Your task to perform on an android device: Open a new Chrome private window Image 0: 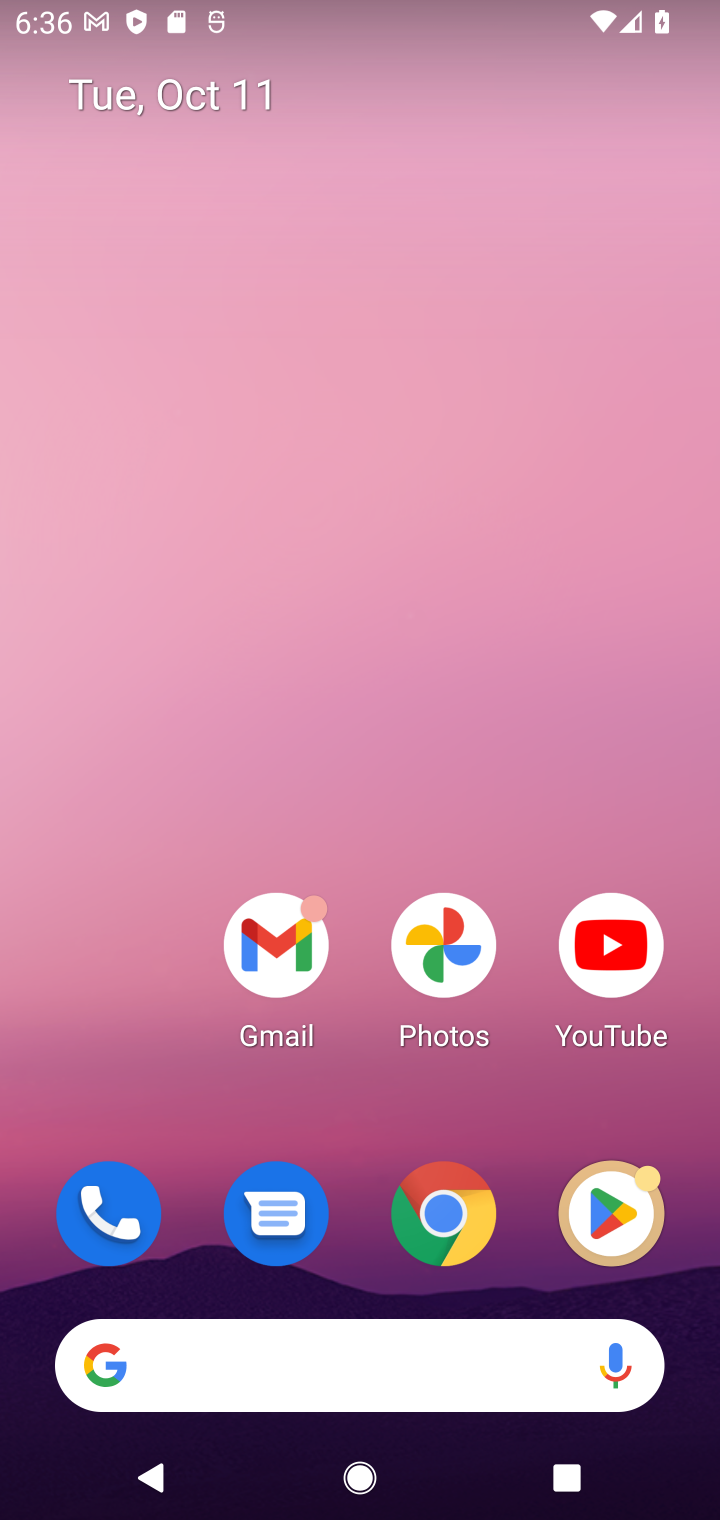
Step 0: drag from (198, 620) to (178, 457)
Your task to perform on an android device: Open a new Chrome private window Image 1: 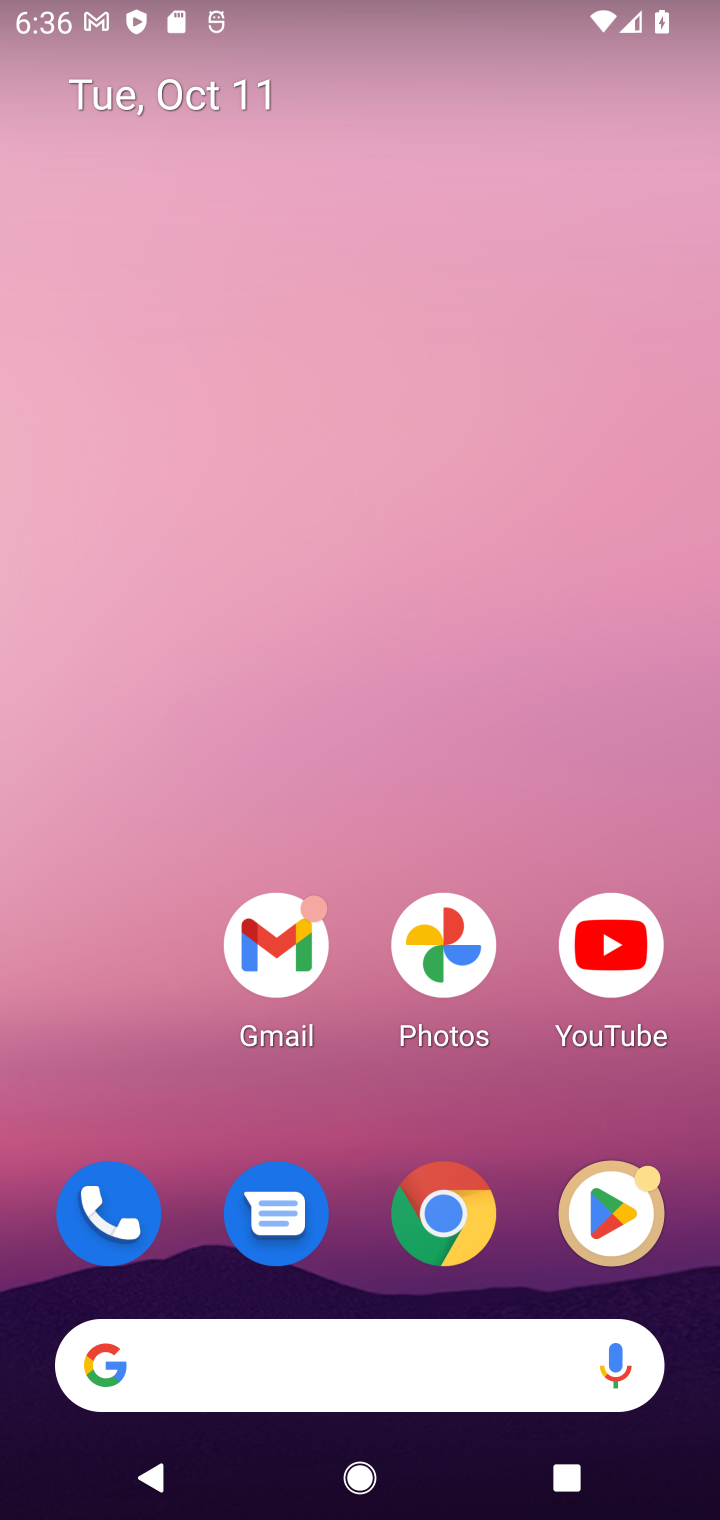
Step 1: click (259, 370)
Your task to perform on an android device: Open a new Chrome private window Image 2: 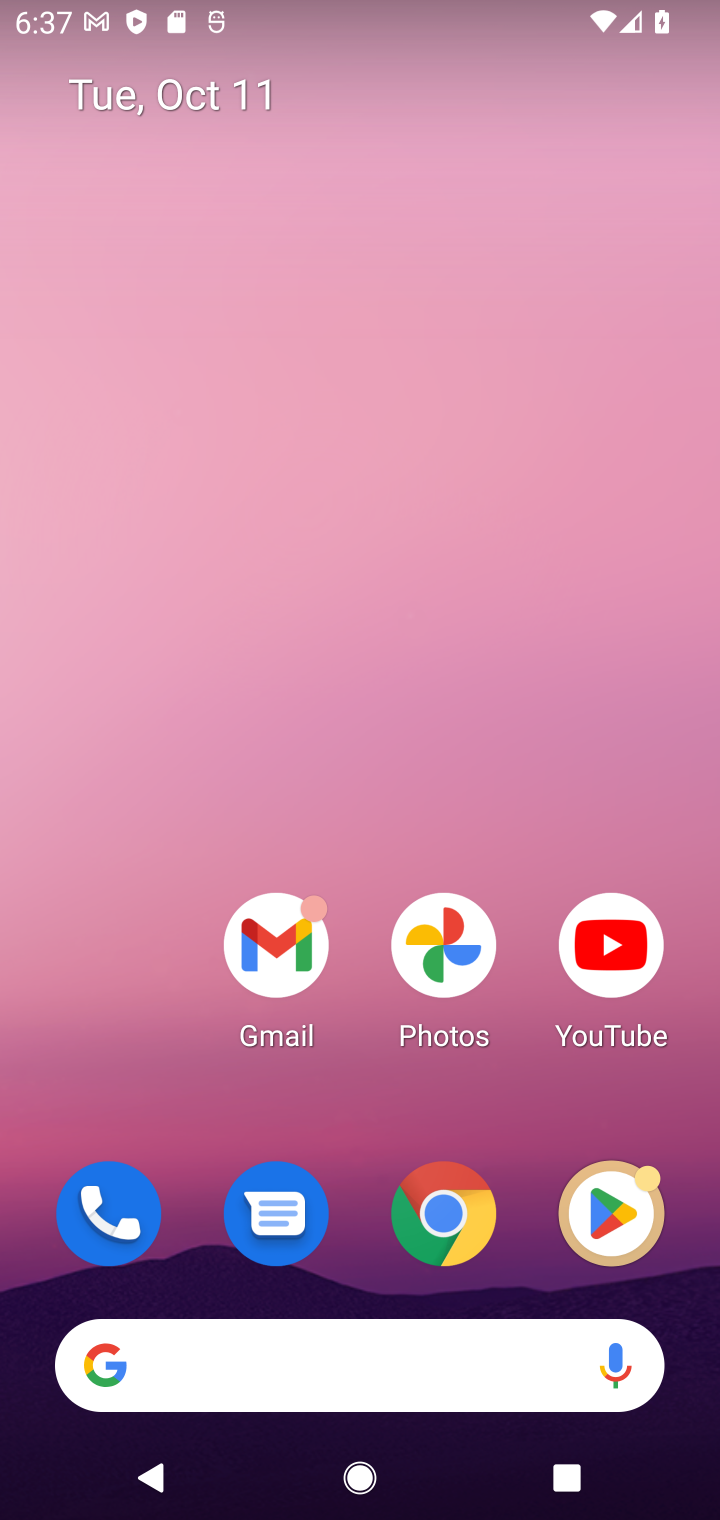
Step 2: click (345, 328)
Your task to perform on an android device: Open a new Chrome private window Image 3: 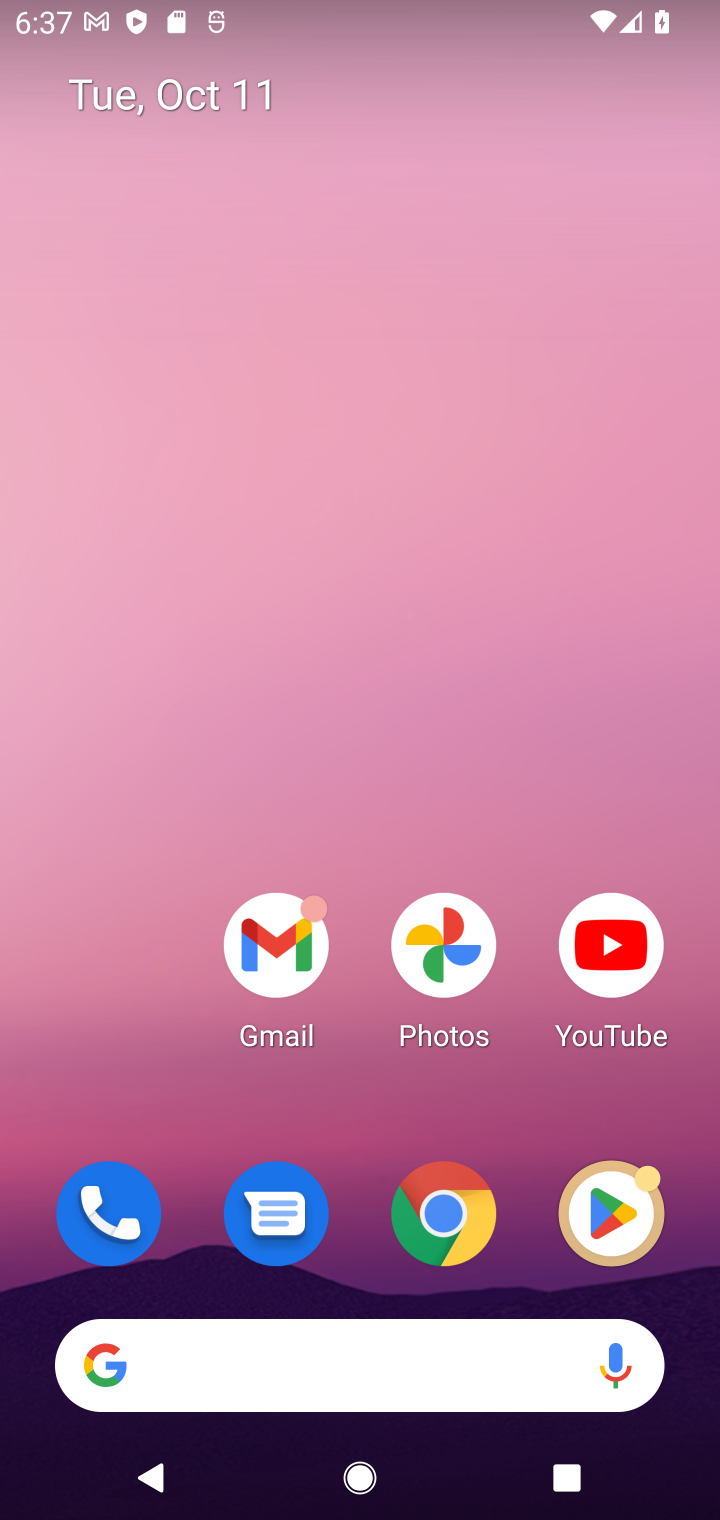
Step 3: click (432, 499)
Your task to perform on an android device: Open a new Chrome private window Image 4: 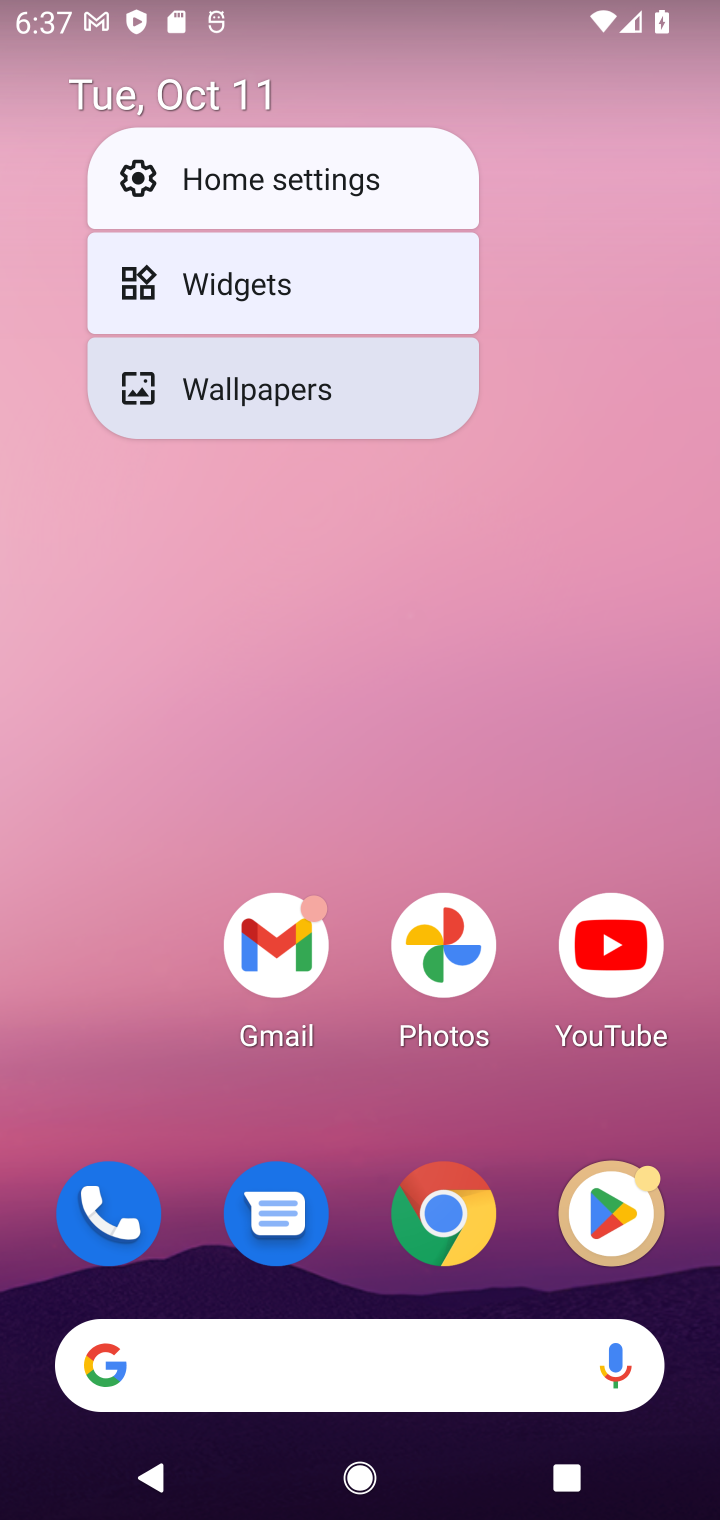
Step 4: click (354, 669)
Your task to perform on an android device: Open a new Chrome private window Image 5: 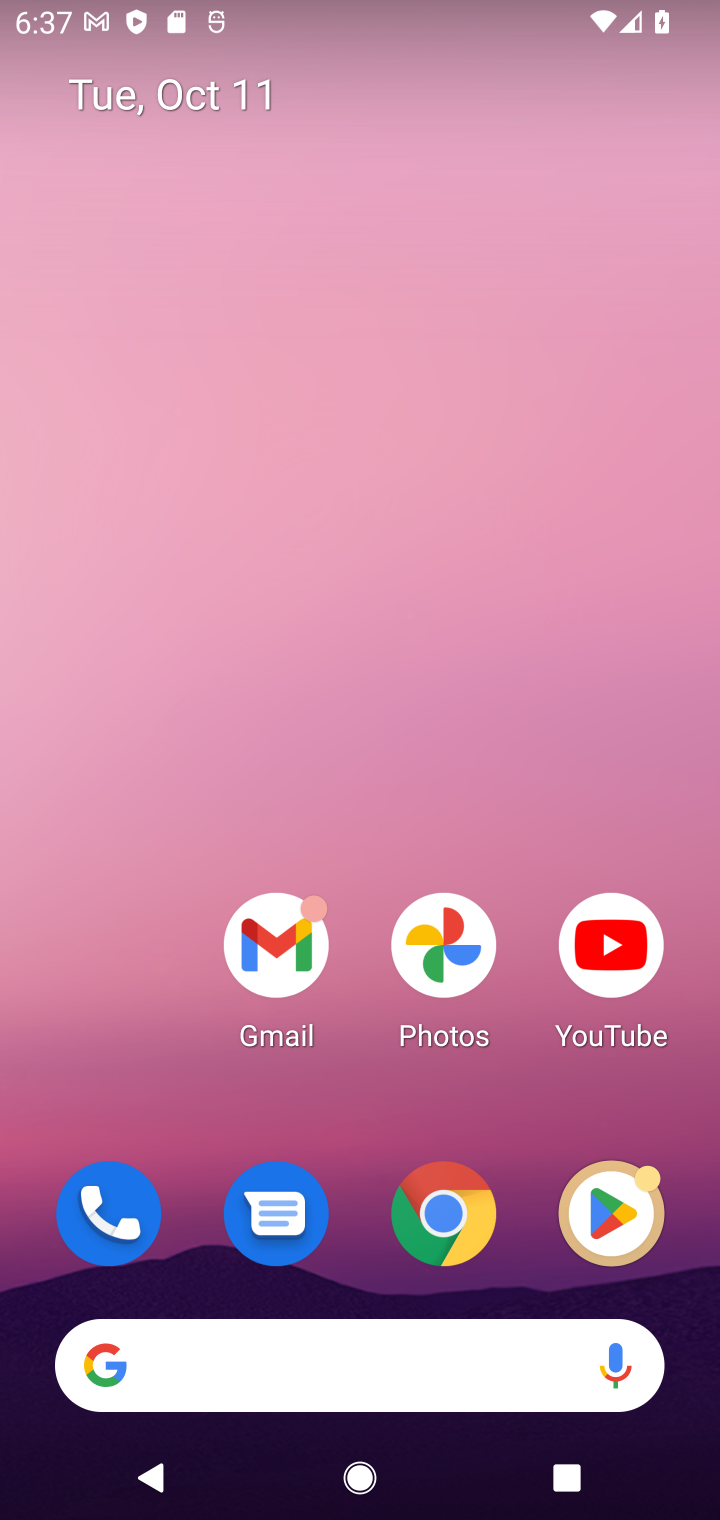
Step 5: drag from (284, 1281) to (299, 261)
Your task to perform on an android device: Open a new Chrome private window Image 6: 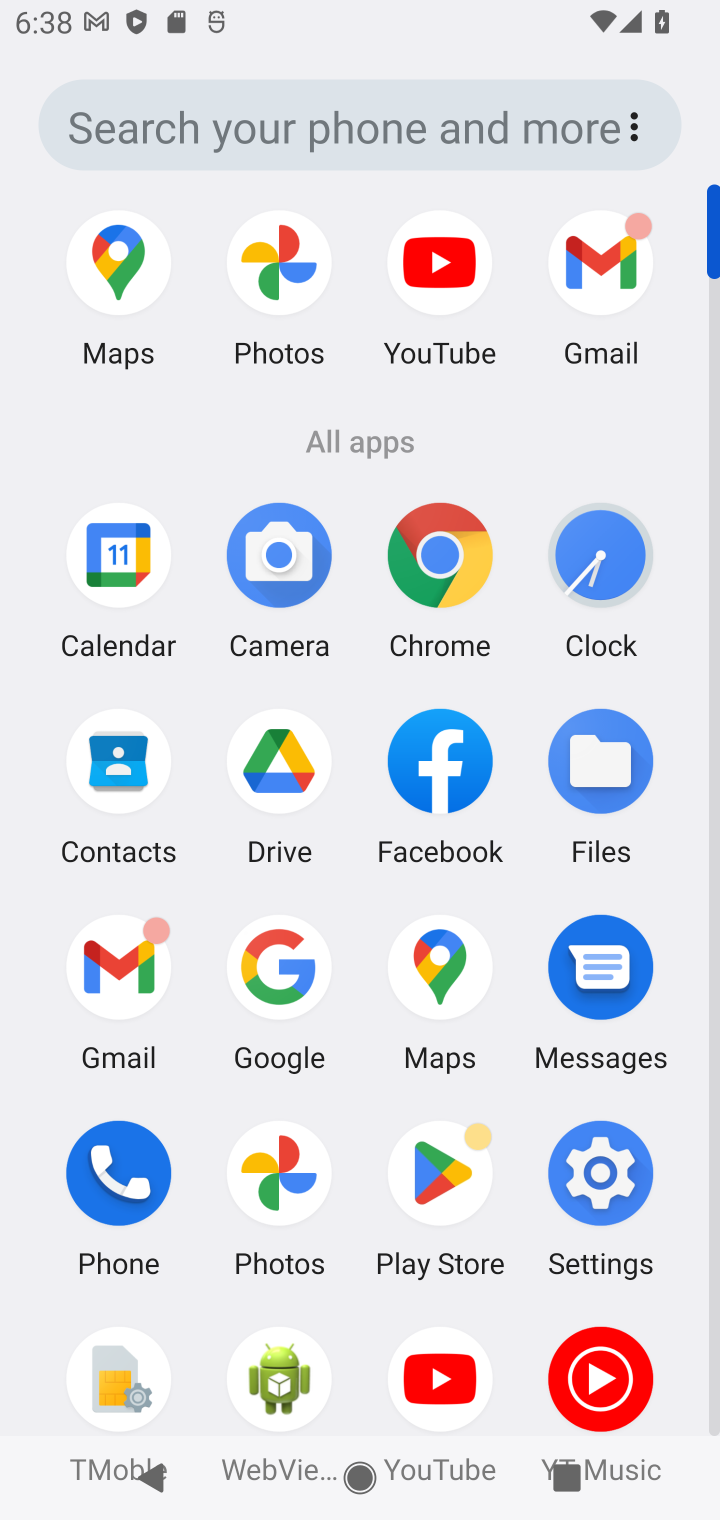
Step 6: click (283, 960)
Your task to perform on an android device: Open a new Chrome private window Image 7: 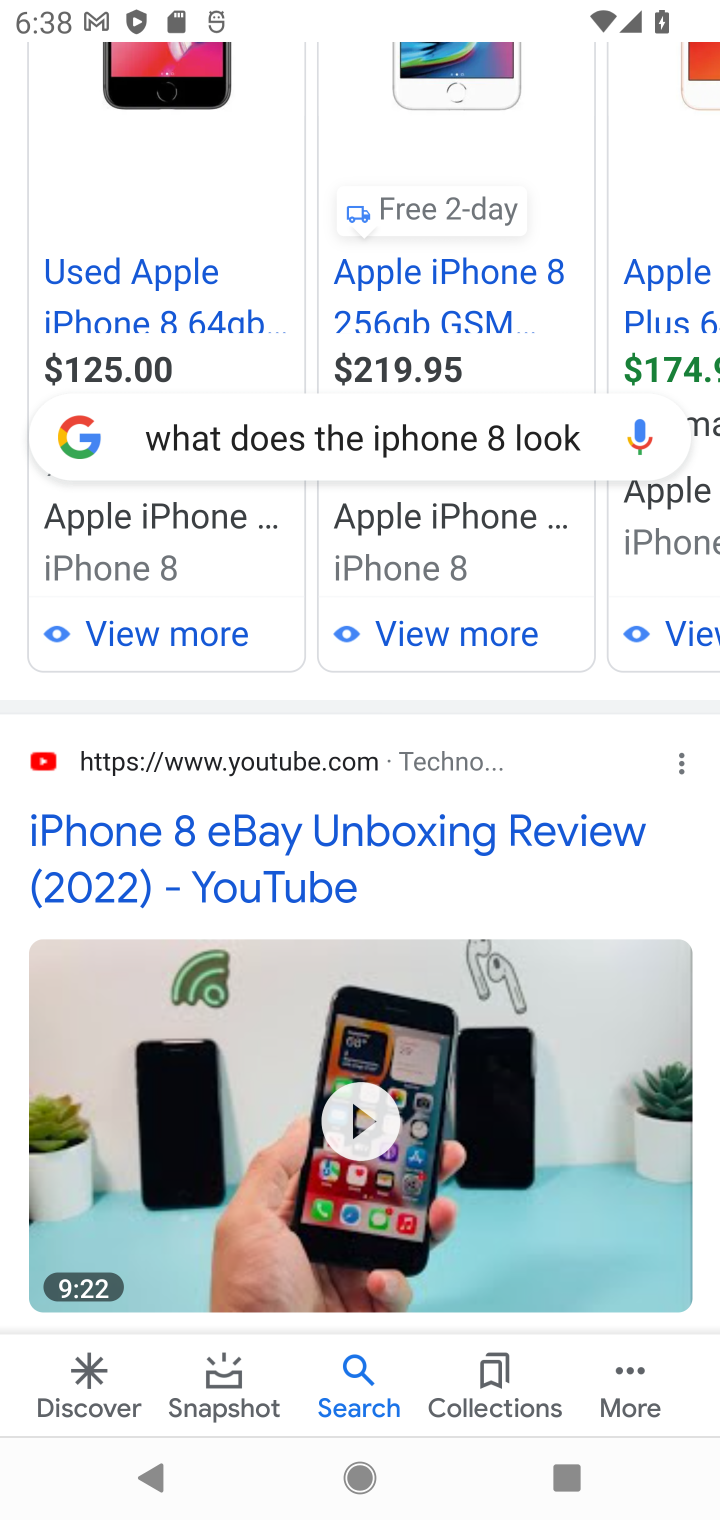
Step 7: drag from (280, 189) to (297, 1087)
Your task to perform on an android device: Open a new Chrome private window Image 8: 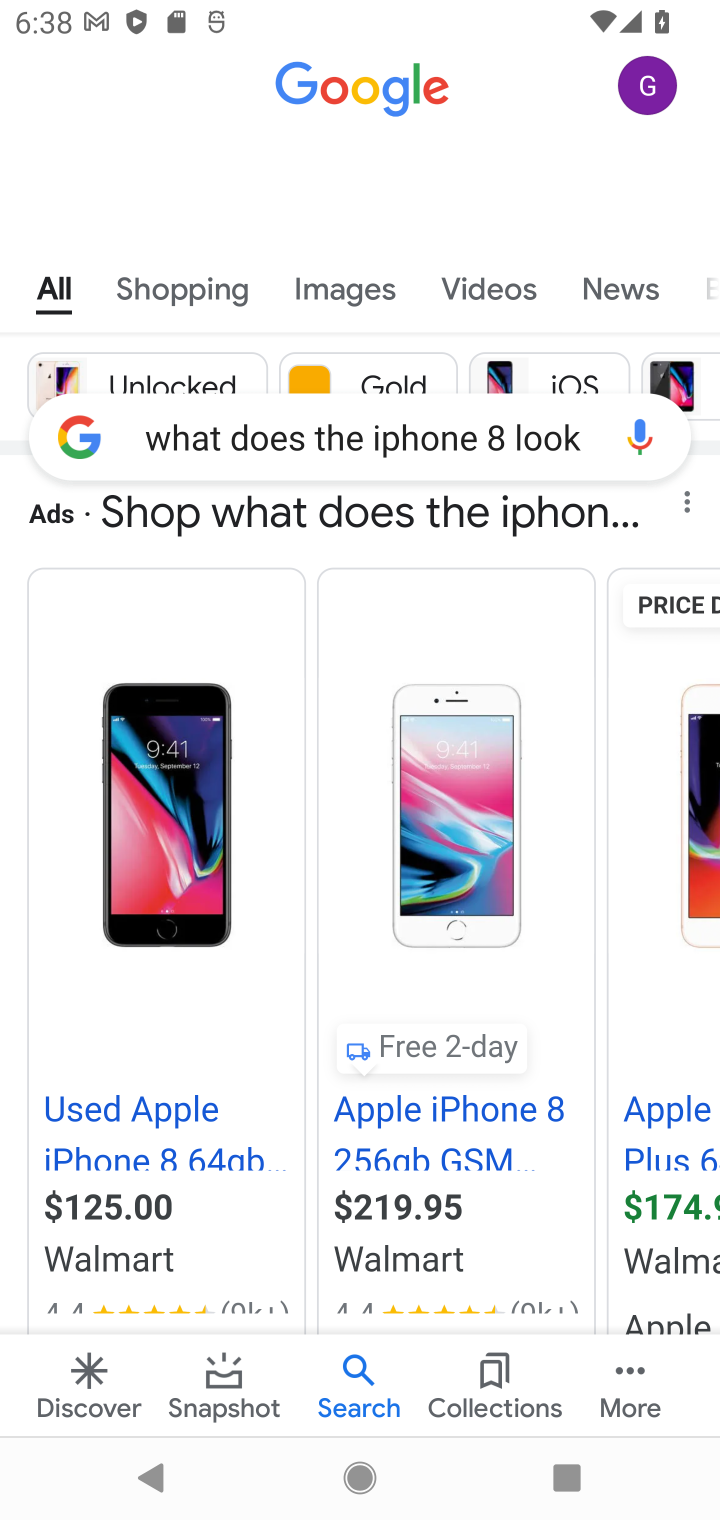
Step 8: click (339, 424)
Your task to perform on an android device: Open a new Chrome private window Image 9: 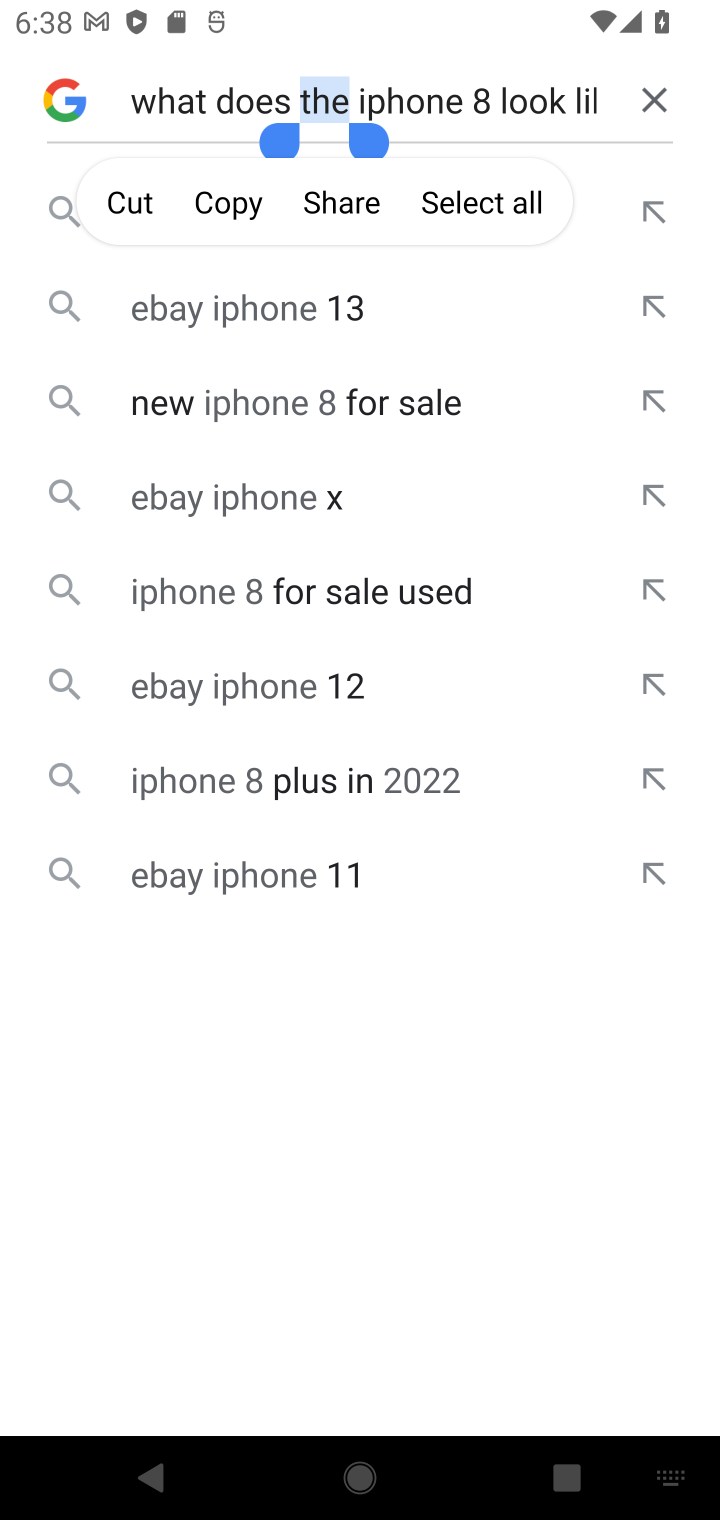
Step 9: click (660, 106)
Your task to perform on an android device: Open a new Chrome private window Image 10: 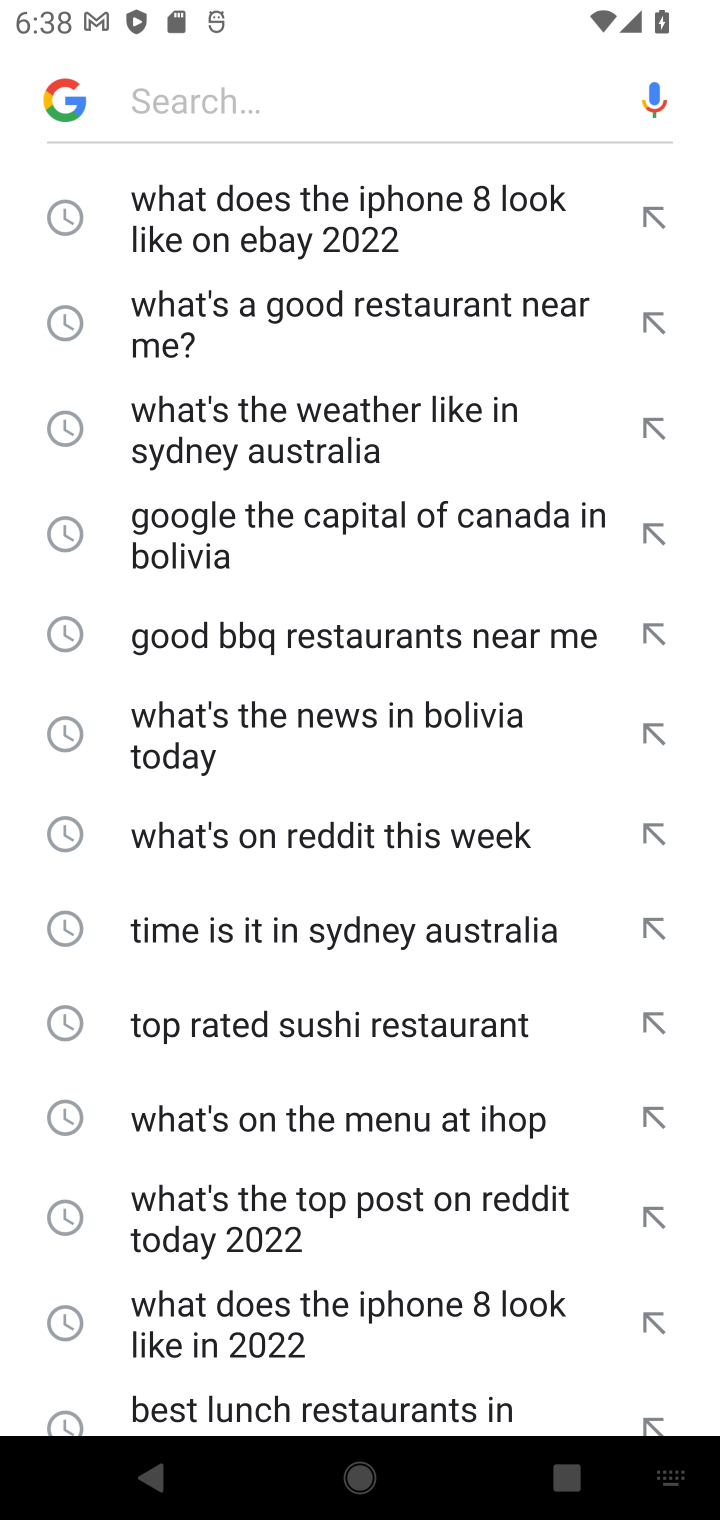
Step 10: click (367, 115)
Your task to perform on an android device: Open a new Chrome private window Image 11: 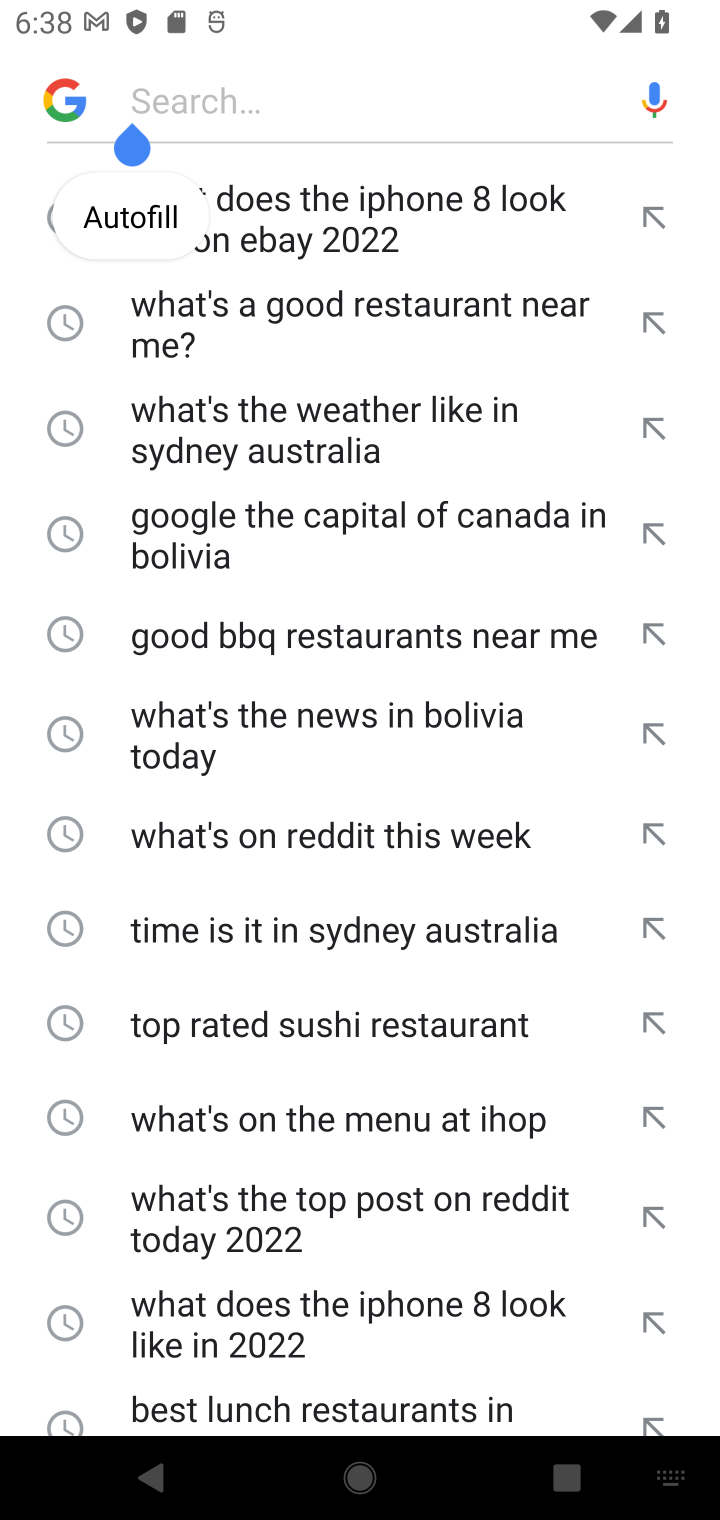
Step 11: type "Open a new Chrome private window "
Your task to perform on an android device: Open a new Chrome private window Image 12: 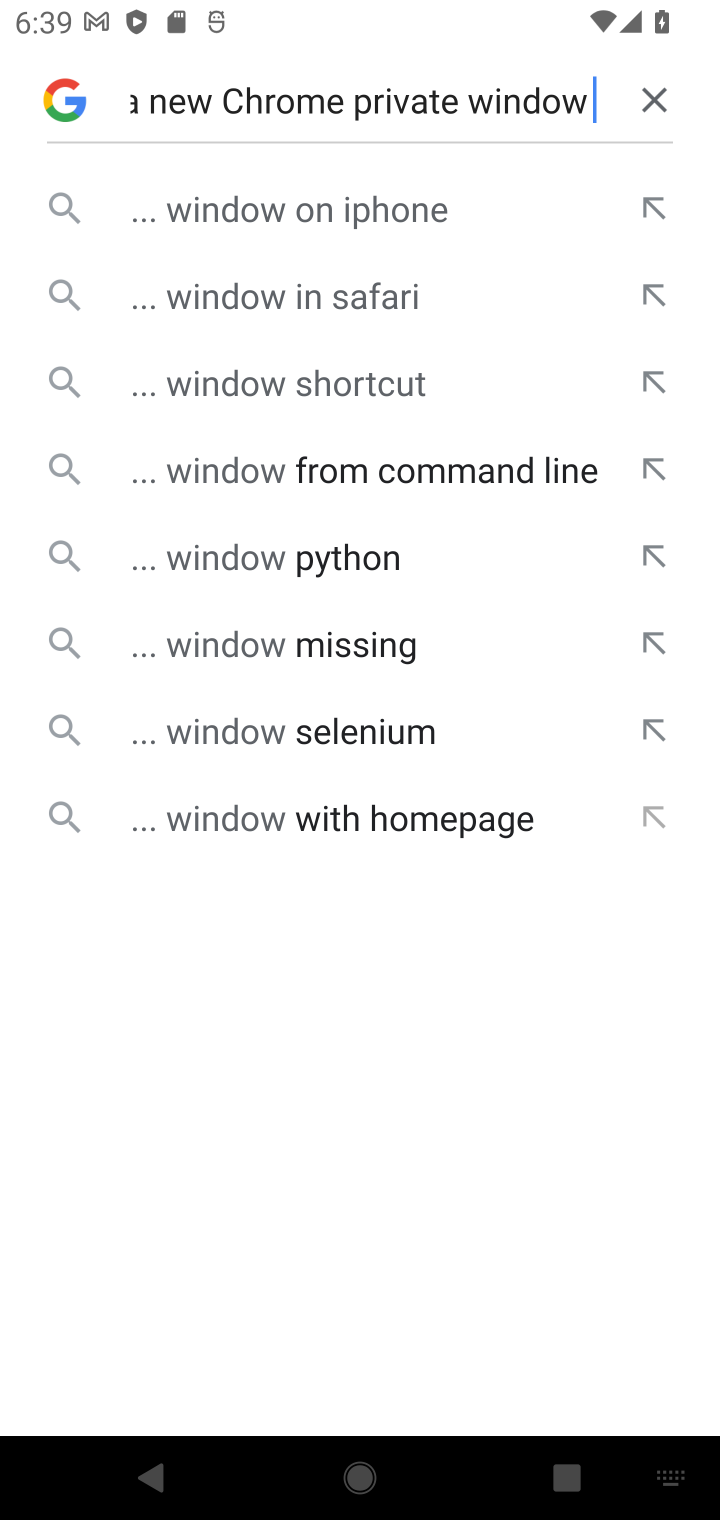
Step 12: click (345, 198)
Your task to perform on an android device: Open a new Chrome private window Image 13: 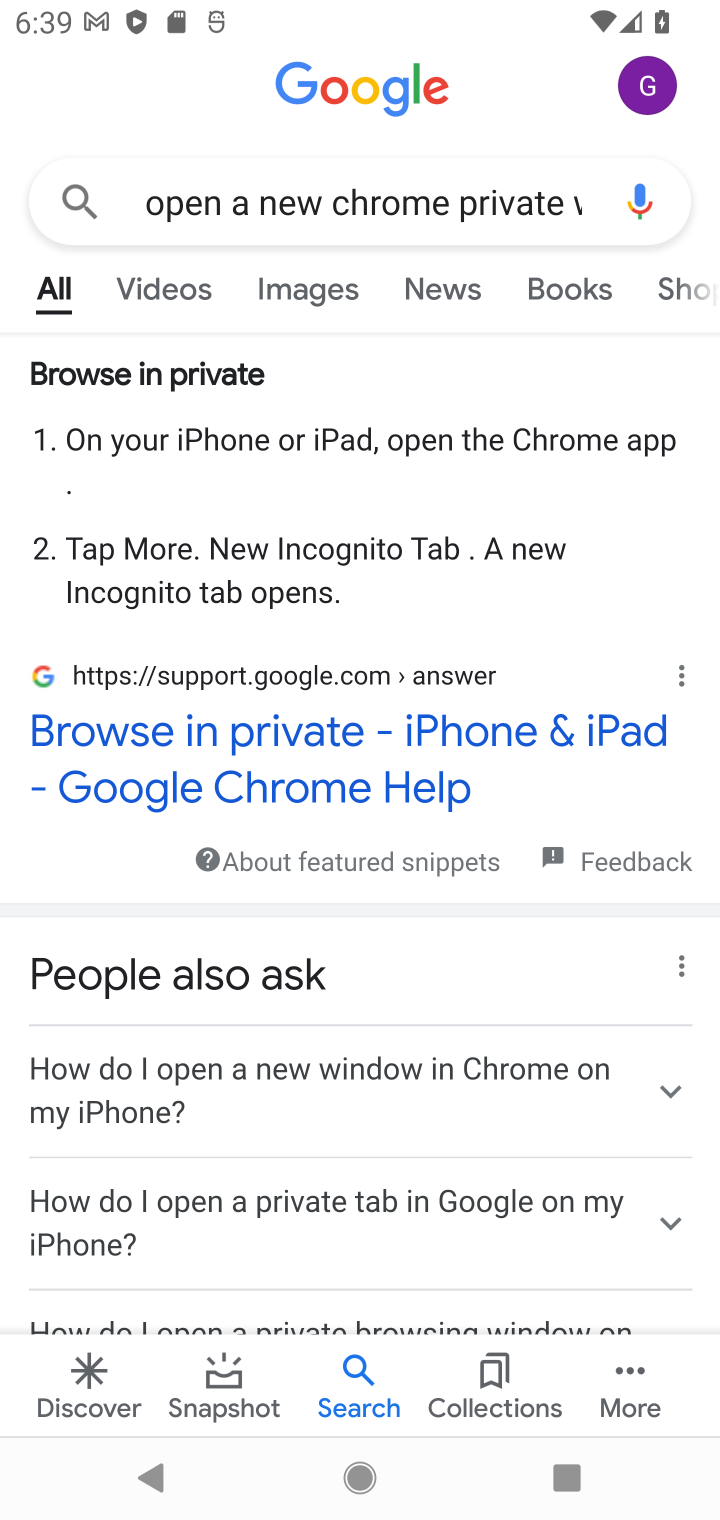
Step 13: click (371, 733)
Your task to perform on an android device: Open a new Chrome private window Image 14: 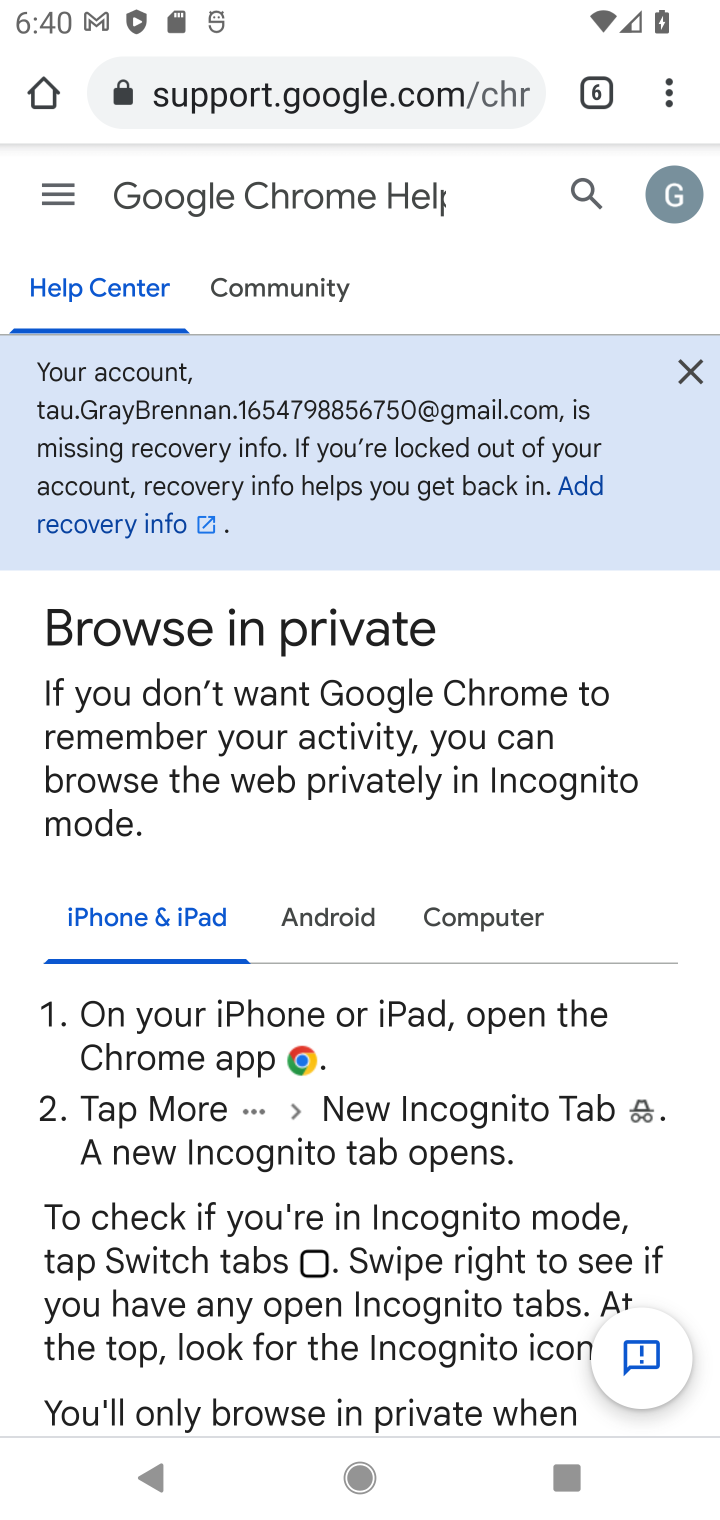
Step 14: task complete